Your task to perform on an android device: toggle airplane mode Image 0: 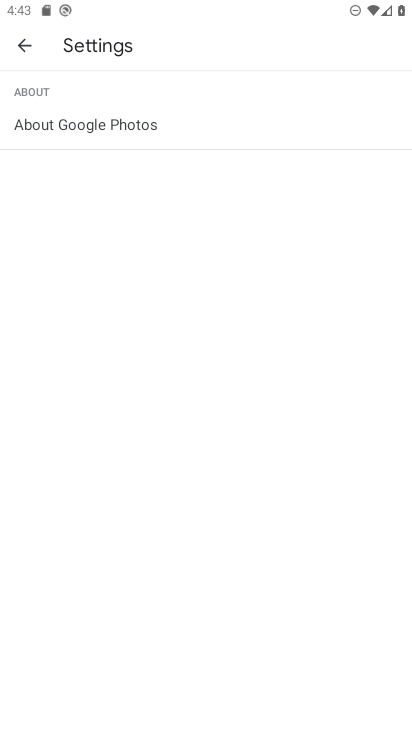
Step 0: press home button
Your task to perform on an android device: toggle airplane mode Image 1: 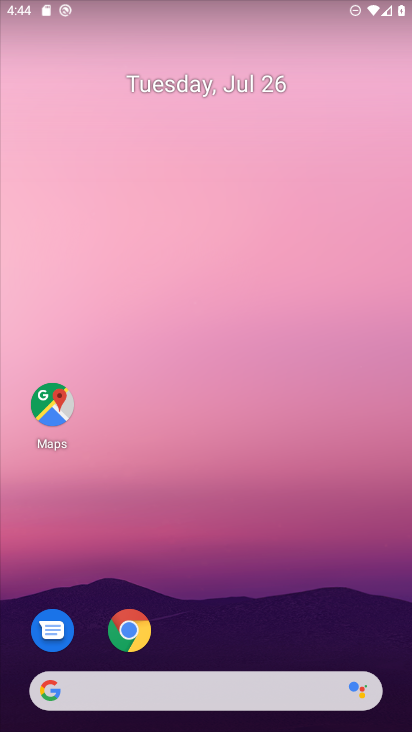
Step 1: drag from (257, 648) to (236, 251)
Your task to perform on an android device: toggle airplane mode Image 2: 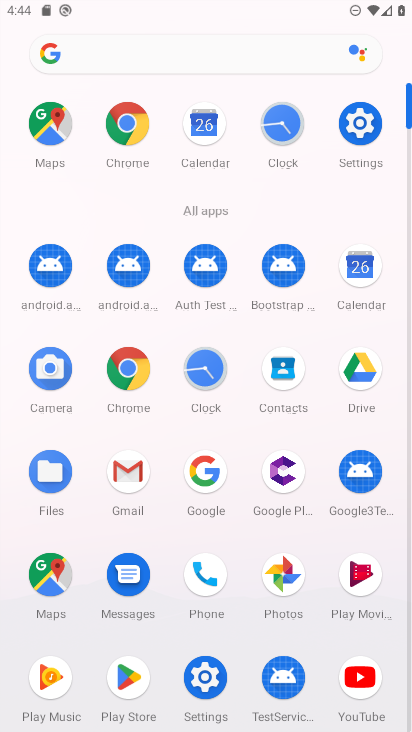
Step 2: click (359, 125)
Your task to perform on an android device: toggle airplane mode Image 3: 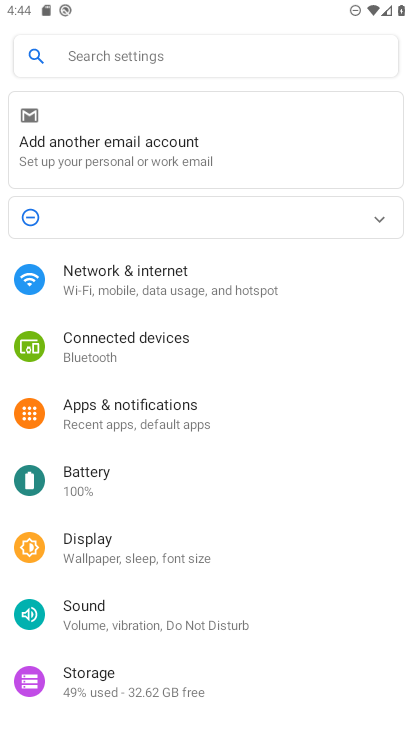
Step 3: click (262, 292)
Your task to perform on an android device: toggle airplane mode Image 4: 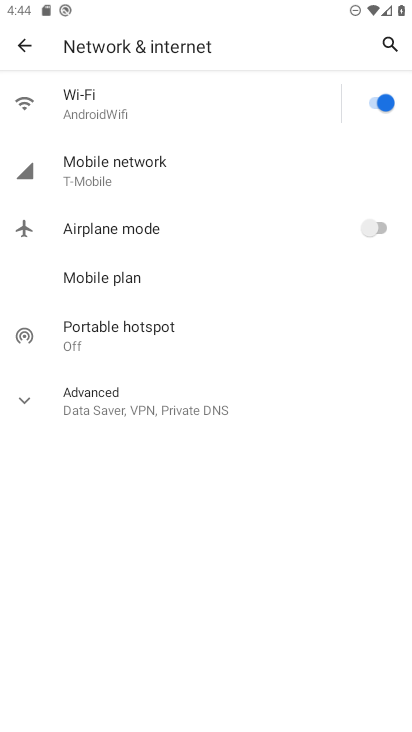
Step 4: click (382, 240)
Your task to perform on an android device: toggle airplane mode Image 5: 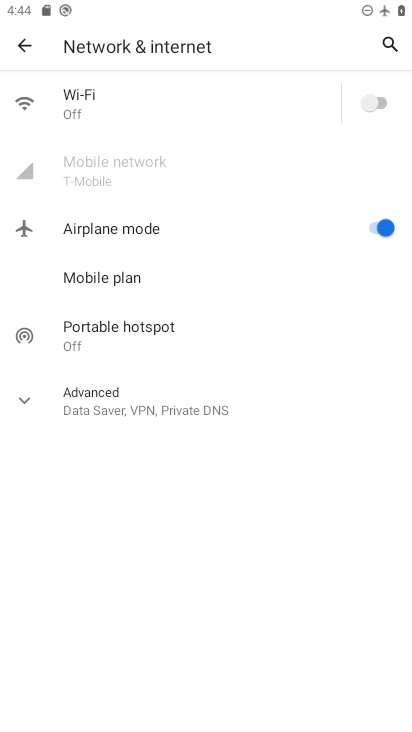
Step 5: task complete